Your task to perform on an android device: Clear the cart on walmart.com. Image 0: 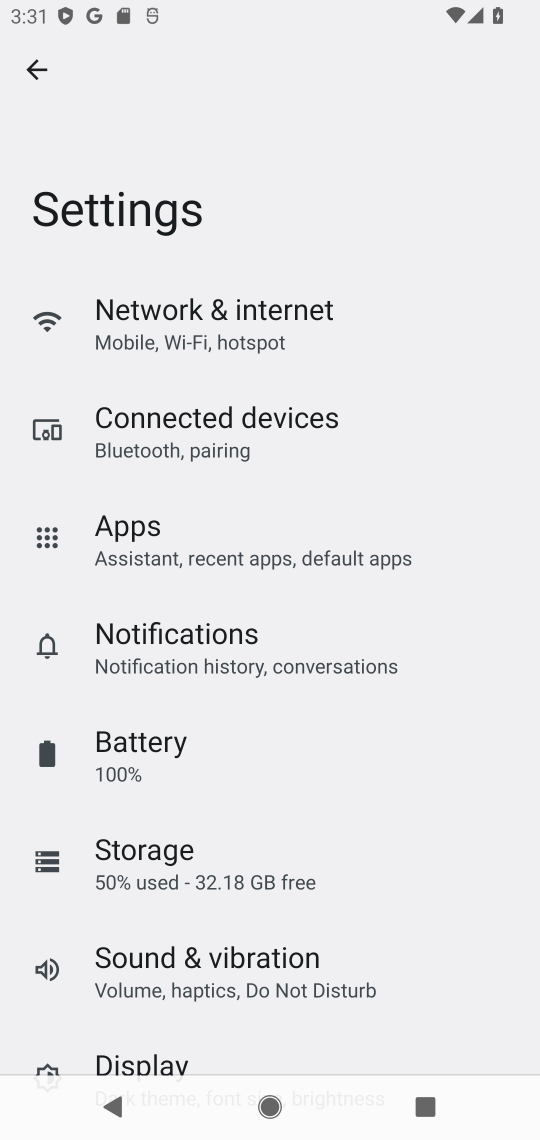
Step 0: press home button
Your task to perform on an android device: Clear the cart on walmart.com. Image 1: 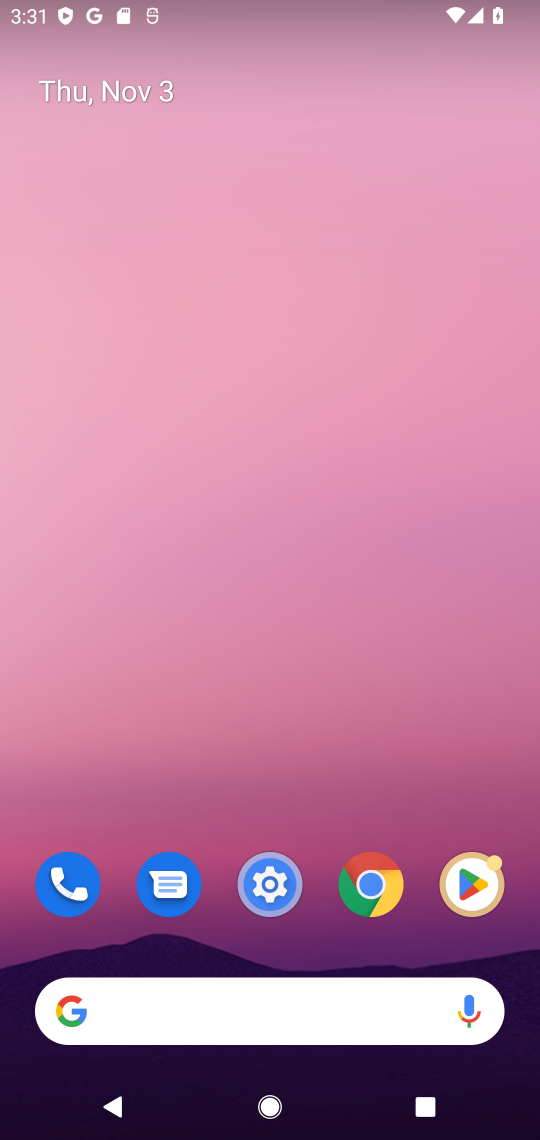
Step 1: click (115, 1008)
Your task to perform on an android device: Clear the cart on walmart.com. Image 2: 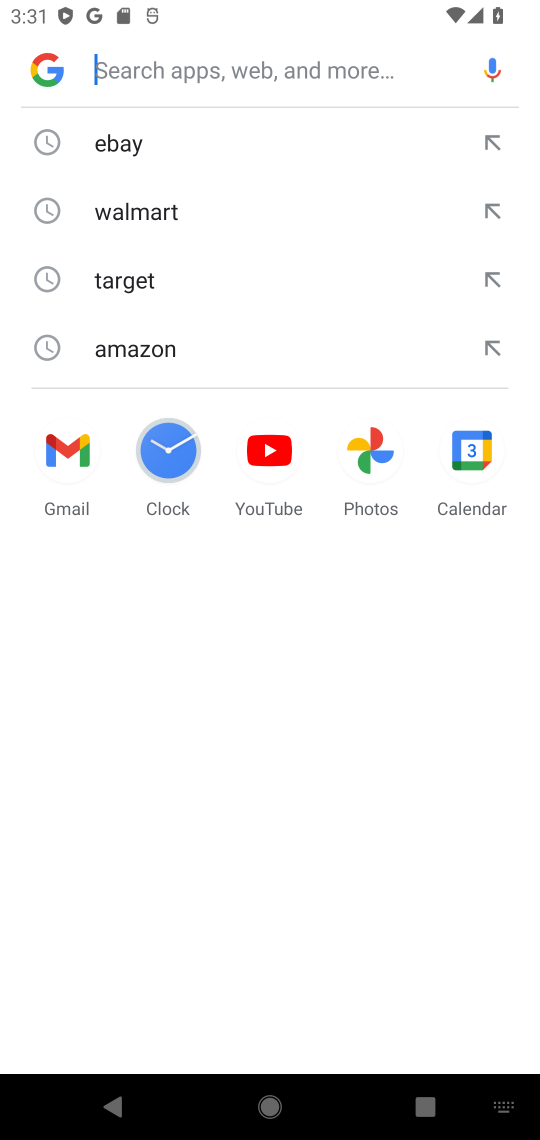
Step 2: type "walmart.com"
Your task to perform on an android device: Clear the cart on walmart.com. Image 3: 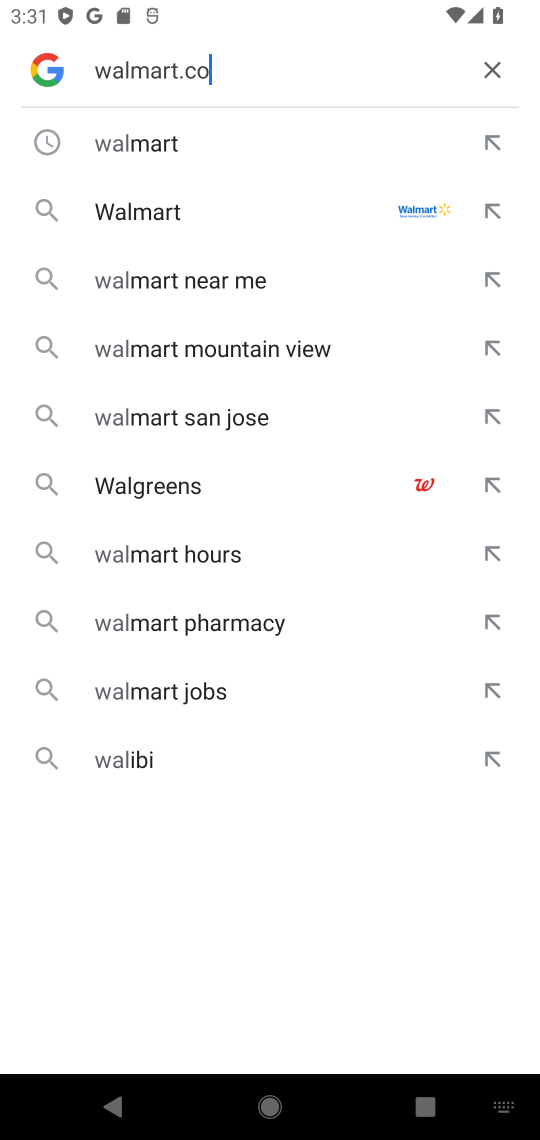
Step 3: press enter
Your task to perform on an android device: Clear the cart on walmart.com. Image 4: 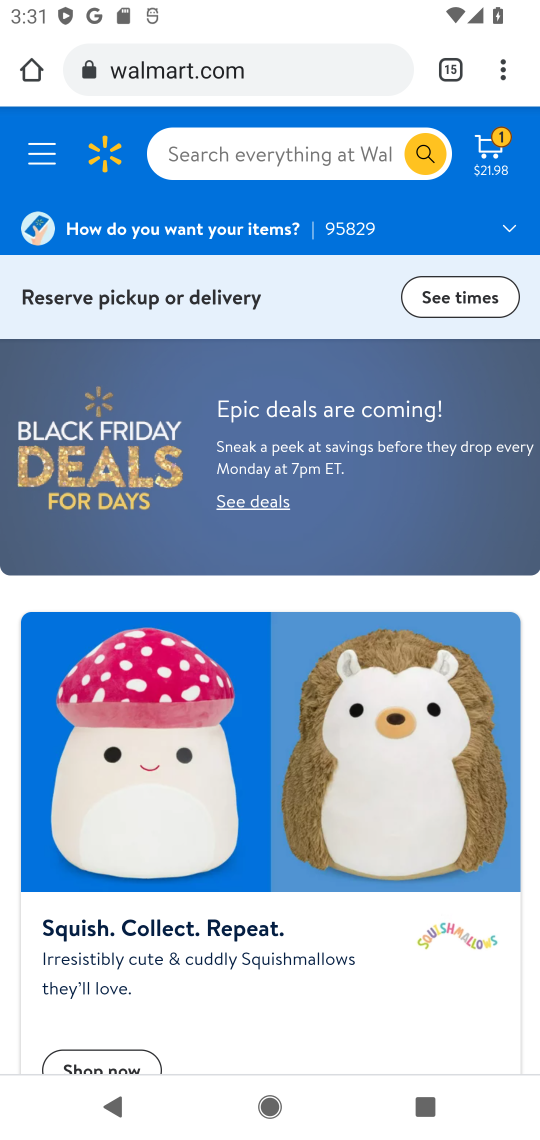
Step 4: click (486, 151)
Your task to perform on an android device: Clear the cart on walmart.com. Image 5: 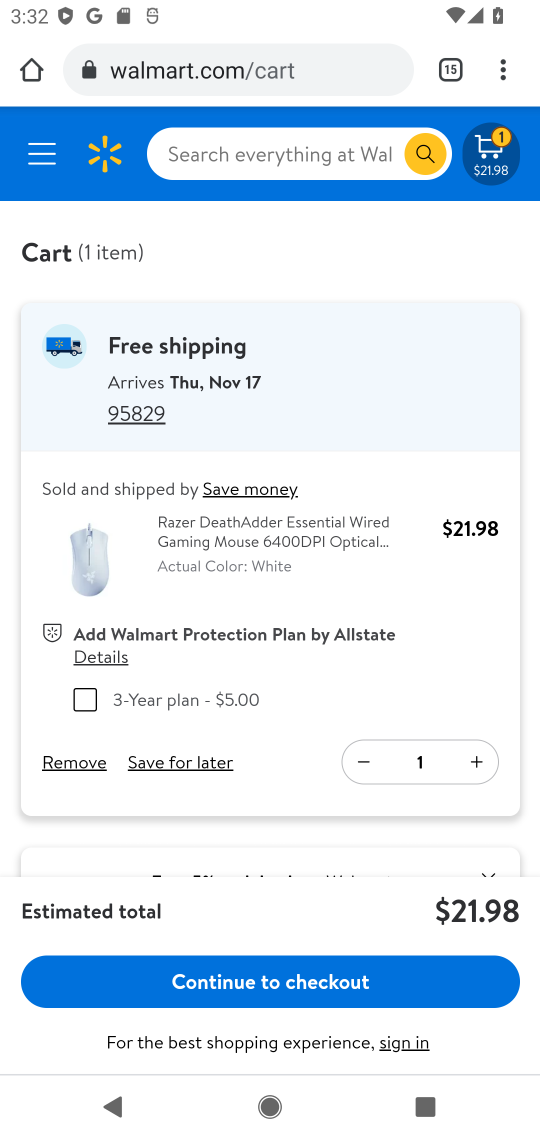
Step 5: click (65, 764)
Your task to perform on an android device: Clear the cart on walmart.com. Image 6: 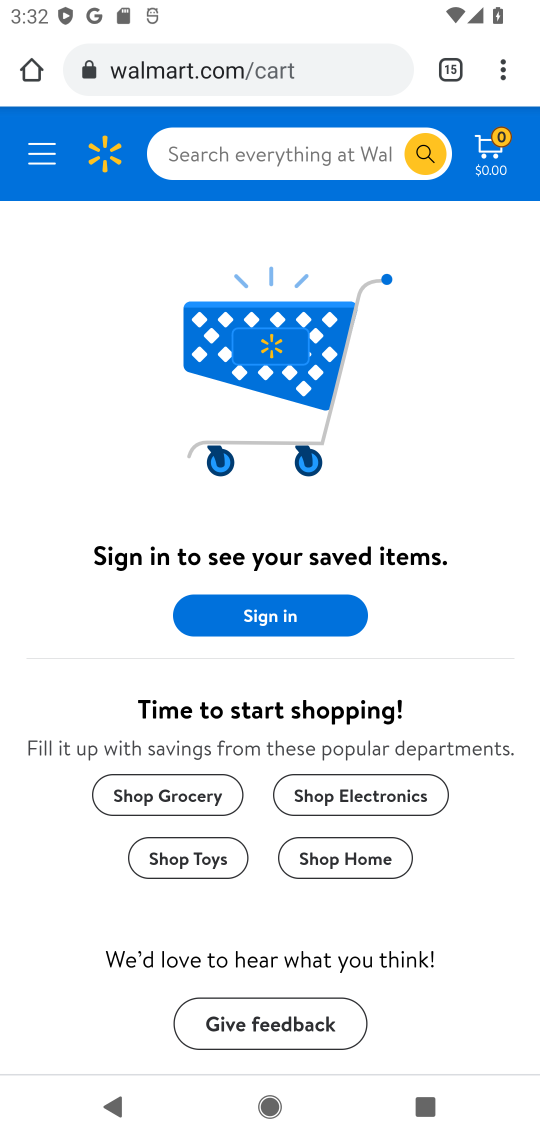
Step 6: task complete